Your task to perform on an android device: Go to eBay Image 0: 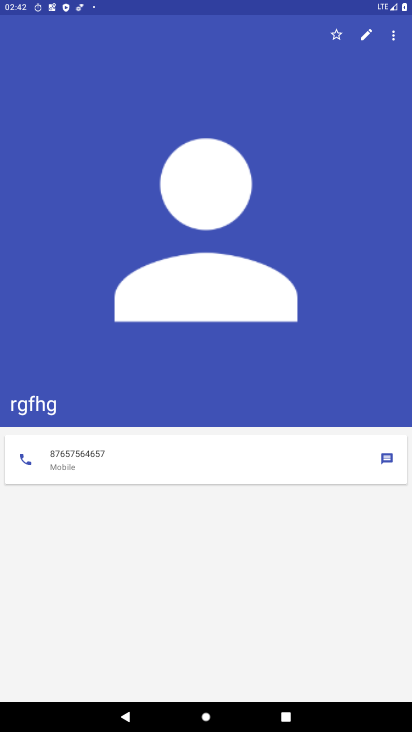
Step 0: press home button
Your task to perform on an android device: Go to eBay Image 1: 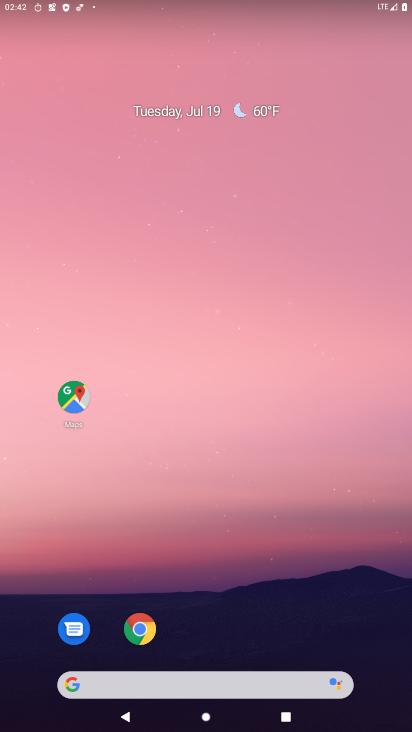
Step 1: click (144, 627)
Your task to perform on an android device: Go to eBay Image 2: 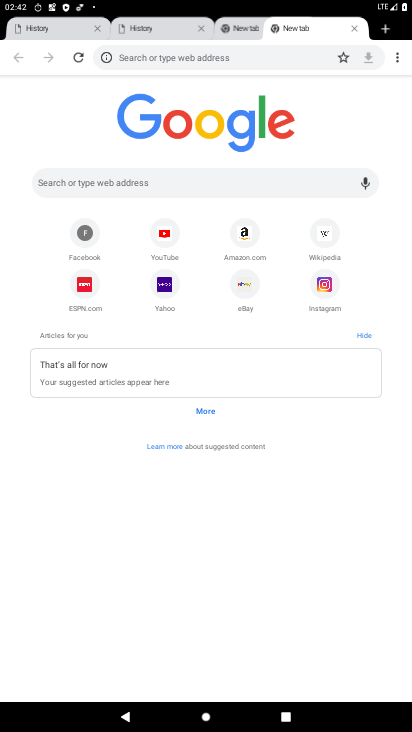
Step 2: click (231, 299)
Your task to perform on an android device: Go to eBay Image 3: 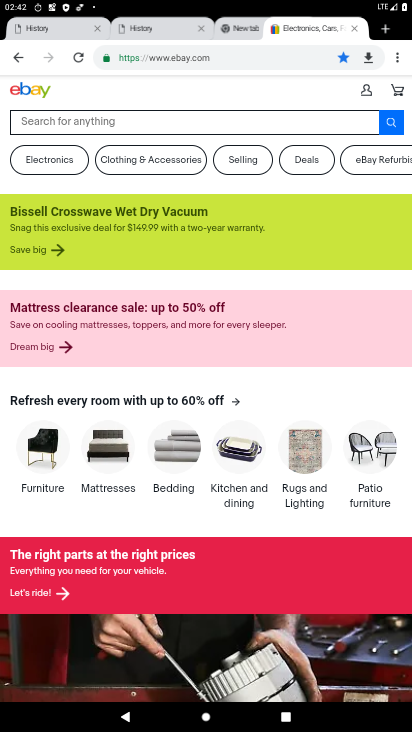
Step 3: task complete